Your task to perform on an android device: Open Youtube and go to "Your channel" Image 0: 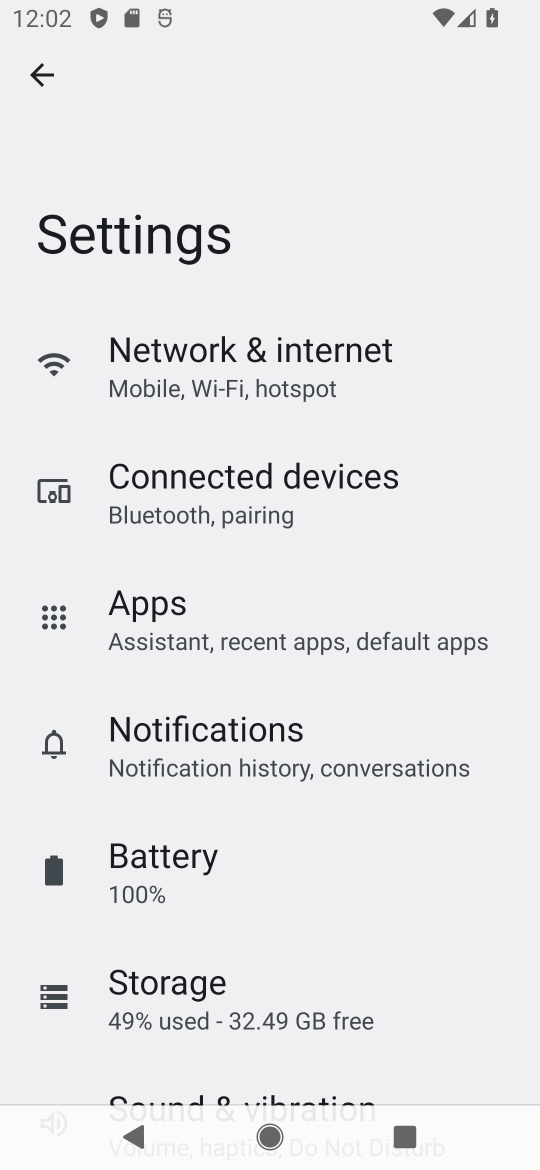
Step 0: press back button
Your task to perform on an android device: Open Youtube and go to "Your channel" Image 1: 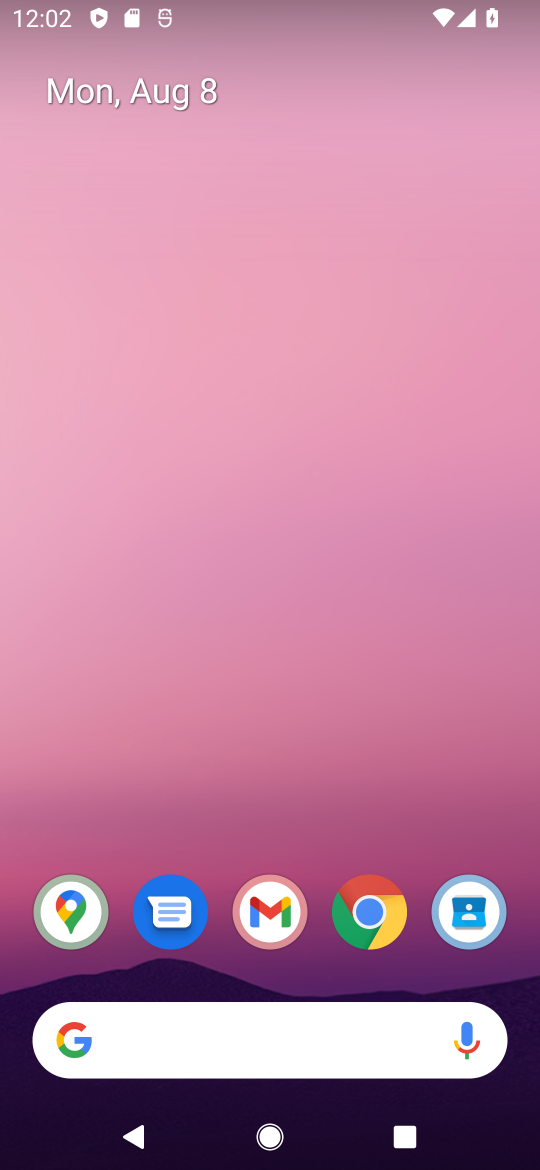
Step 1: drag from (261, 848) to (390, 85)
Your task to perform on an android device: Open Youtube and go to "Your channel" Image 2: 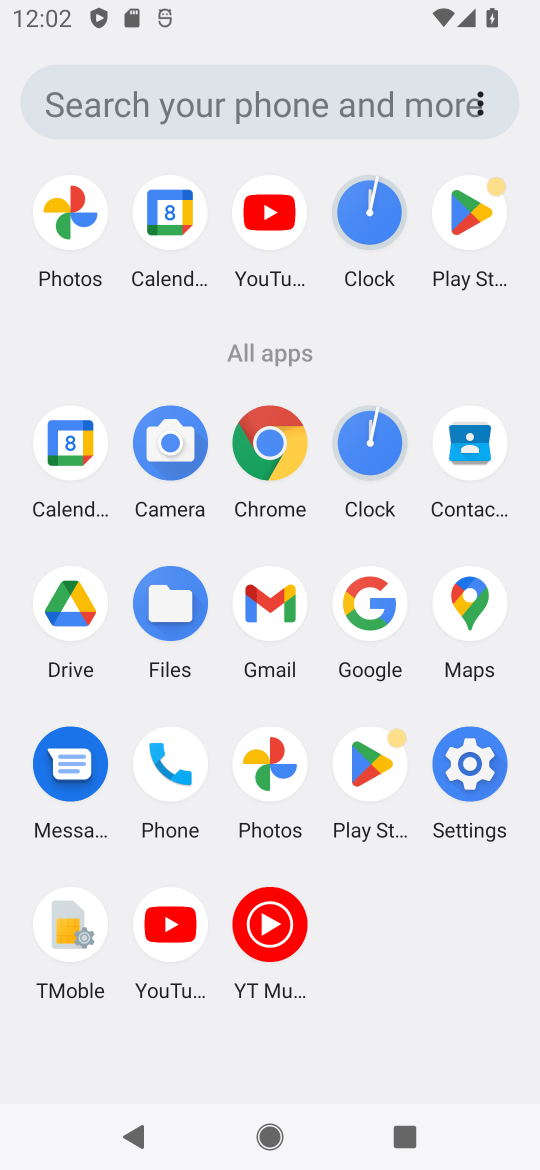
Step 2: click (162, 928)
Your task to perform on an android device: Open Youtube and go to "Your channel" Image 3: 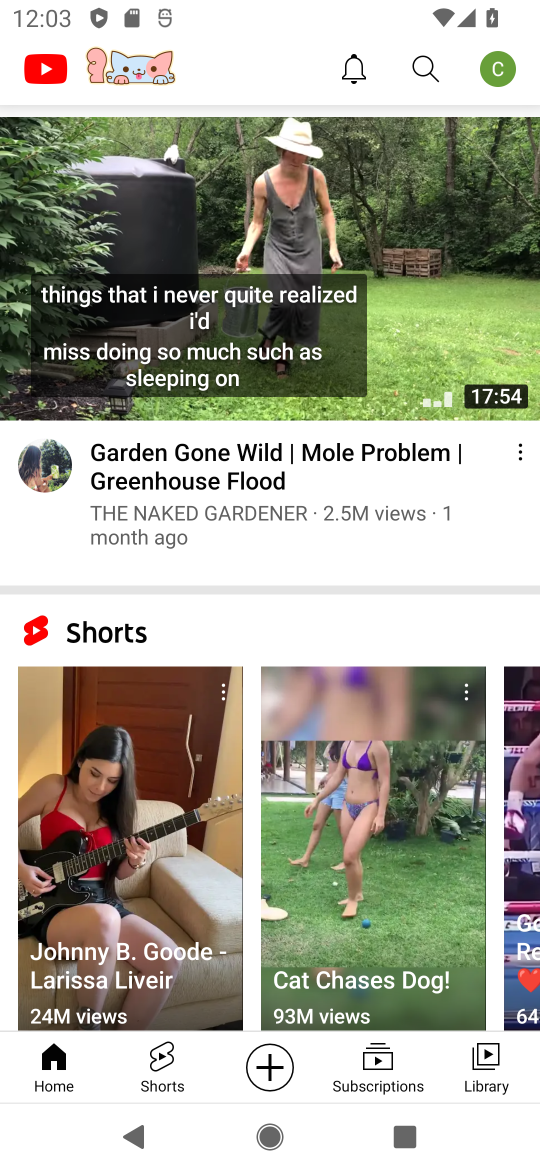
Step 3: click (481, 61)
Your task to perform on an android device: Open Youtube and go to "Your channel" Image 4: 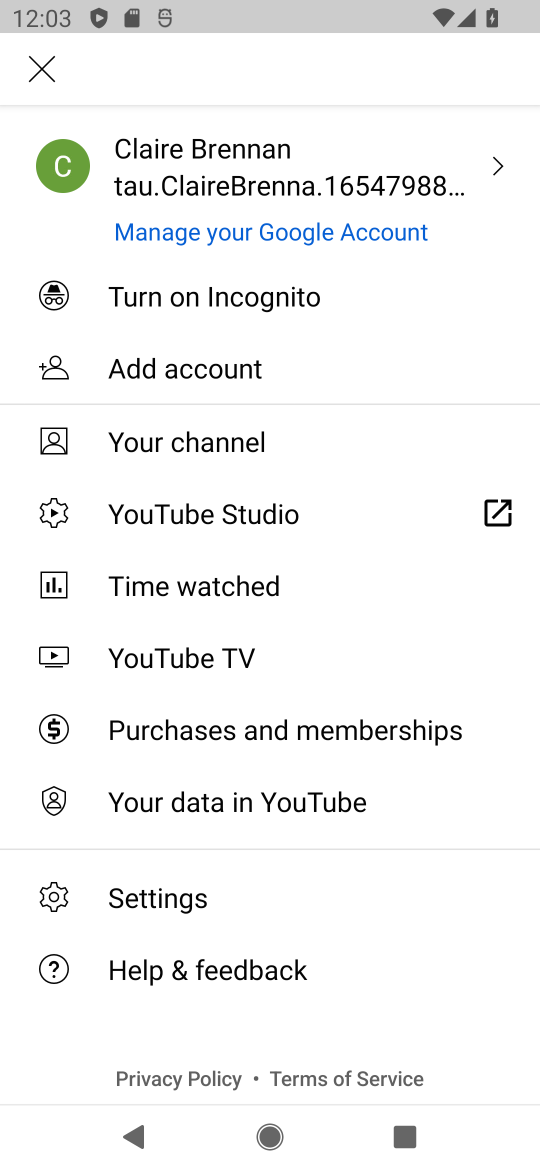
Step 4: click (169, 435)
Your task to perform on an android device: Open Youtube and go to "Your channel" Image 5: 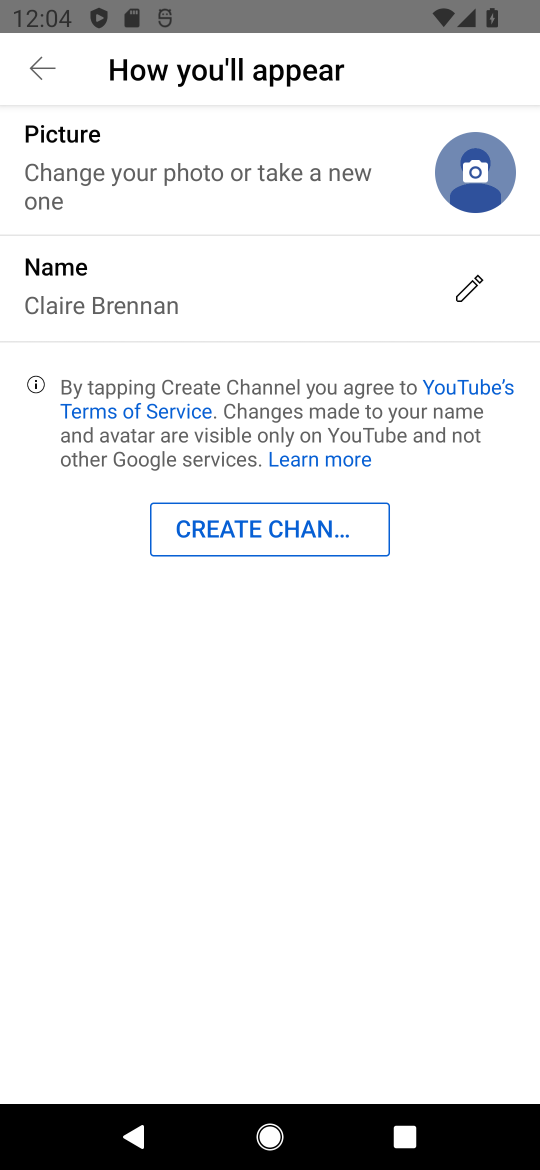
Step 5: task complete